Your task to perform on an android device: turn off priority inbox in the gmail app Image 0: 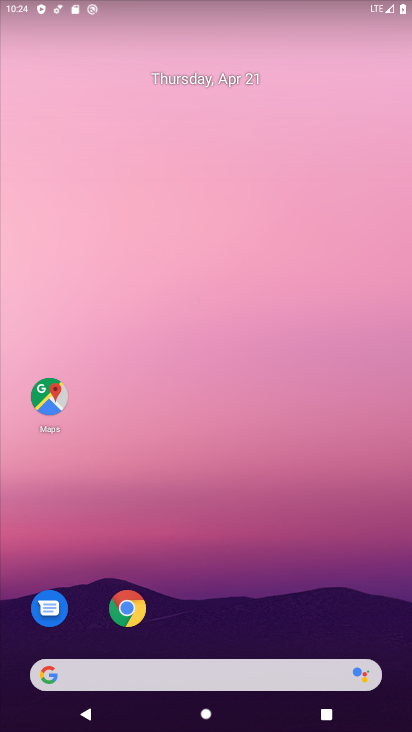
Step 0: drag from (198, 603) to (131, 121)
Your task to perform on an android device: turn off priority inbox in the gmail app Image 1: 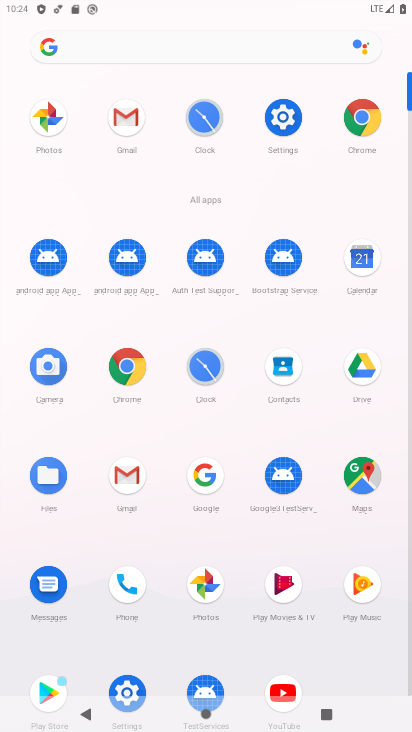
Step 1: click (123, 471)
Your task to perform on an android device: turn off priority inbox in the gmail app Image 2: 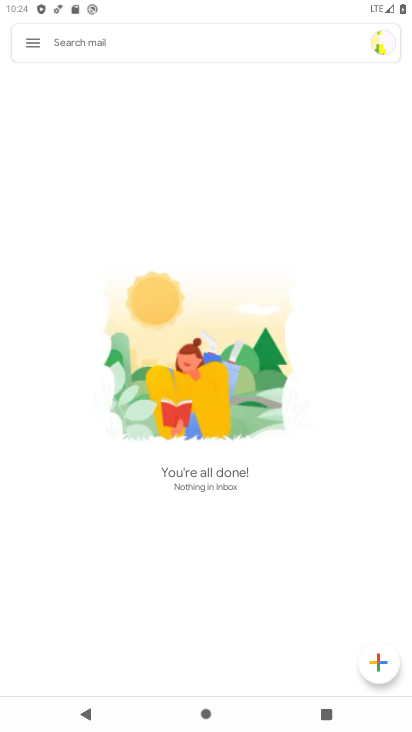
Step 2: click (29, 50)
Your task to perform on an android device: turn off priority inbox in the gmail app Image 3: 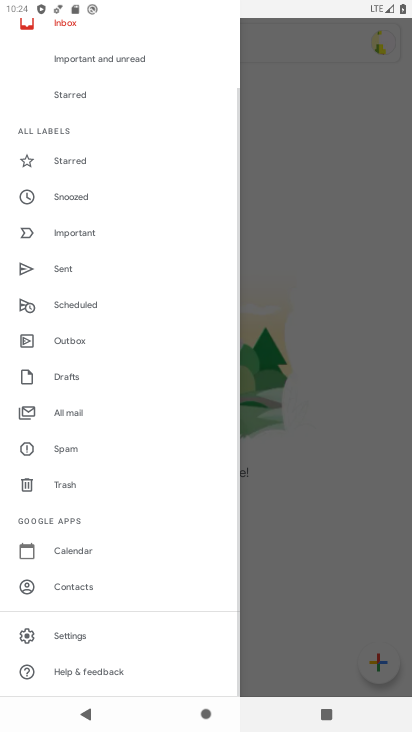
Step 3: click (65, 632)
Your task to perform on an android device: turn off priority inbox in the gmail app Image 4: 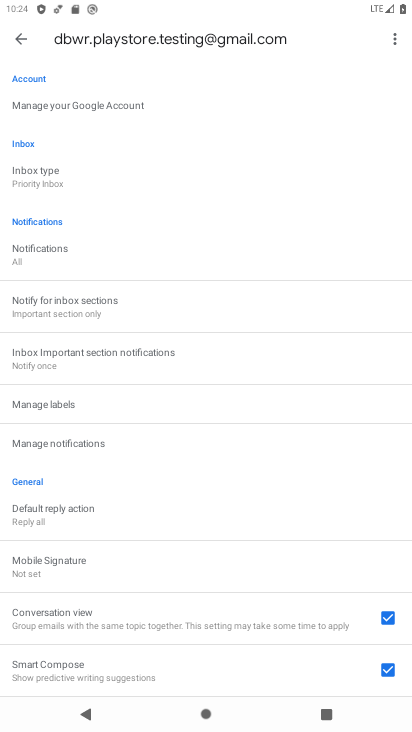
Step 4: click (42, 180)
Your task to perform on an android device: turn off priority inbox in the gmail app Image 5: 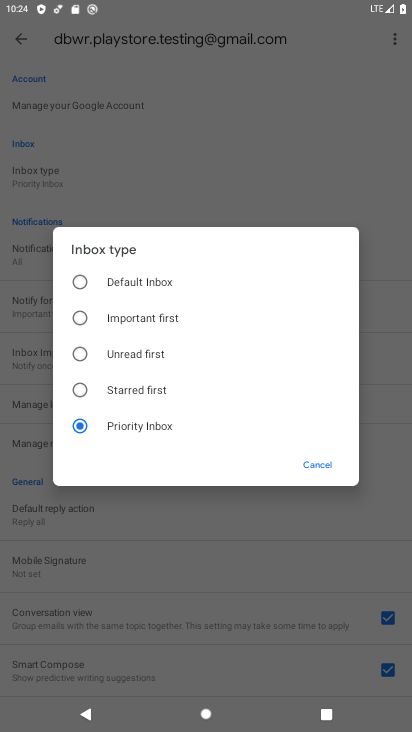
Step 5: click (77, 284)
Your task to perform on an android device: turn off priority inbox in the gmail app Image 6: 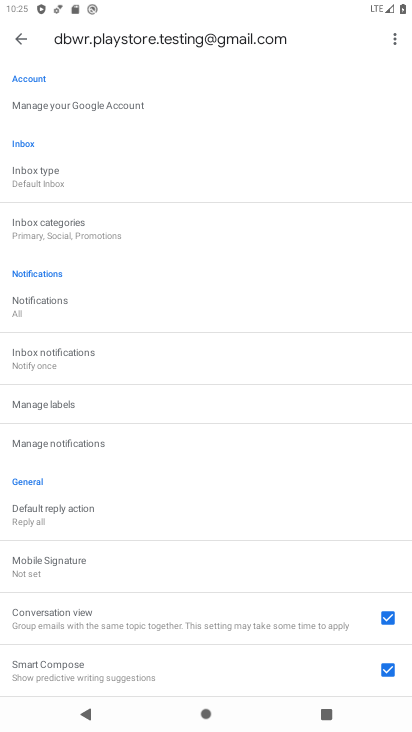
Step 6: task complete